Your task to perform on an android device: change notification settings in the gmail app Image 0: 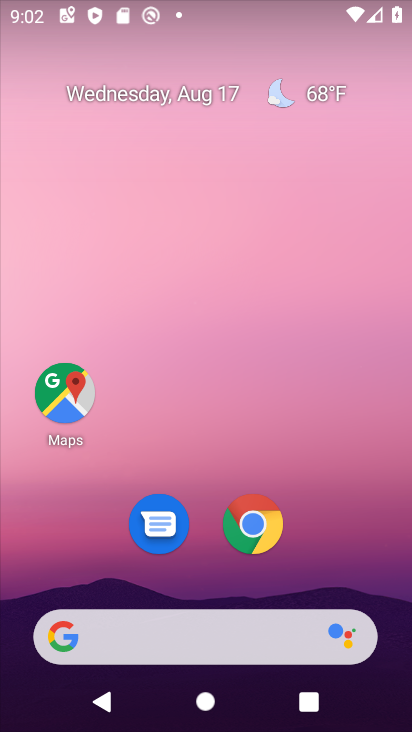
Step 0: drag from (251, 473) to (281, 13)
Your task to perform on an android device: change notification settings in the gmail app Image 1: 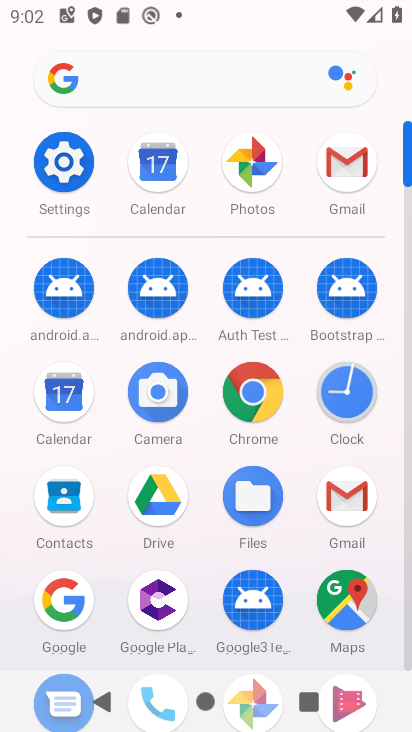
Step 1: click (352, 158)
Your task to perform on an android device: change notification settings in the gmail app Image 2: 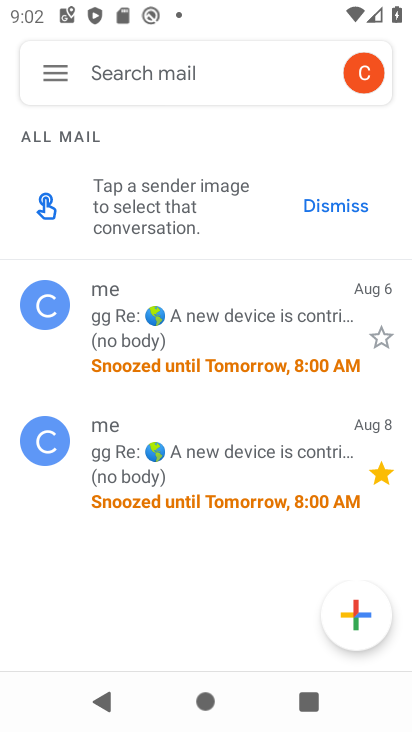
Step 2: click (59, 72)
Your task to perform on an android device: change notification settings in the gmail app Image 3: 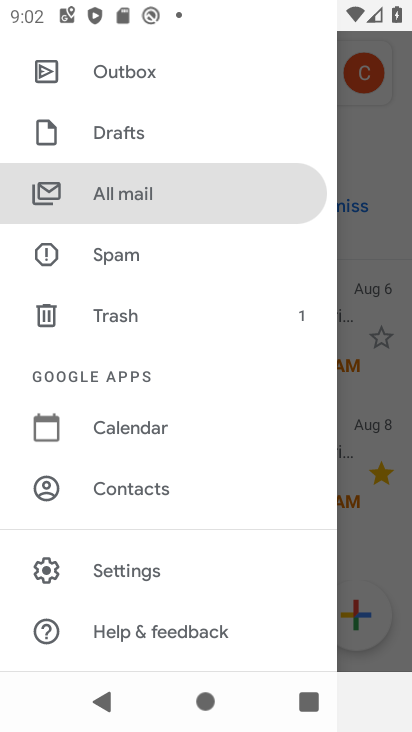
Step 3: click (118, 560)
Your task to perform on an android device: change notification settings in the gmail app Image 4: 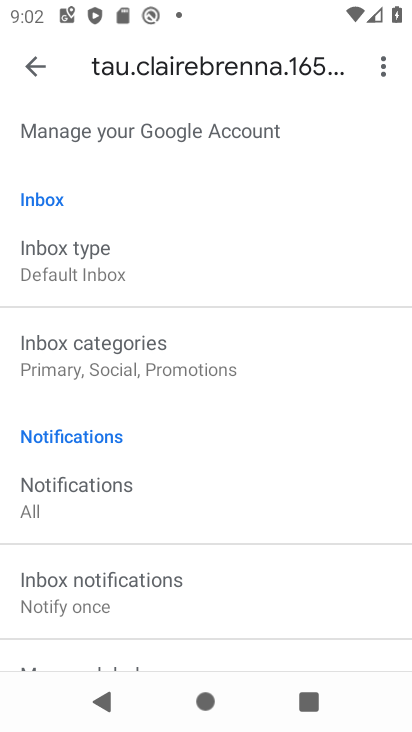
Step 4: drag from (172, 476) to (194, 21)
Your task to perform on an android device: change notification settings in the gmail app Image 5: 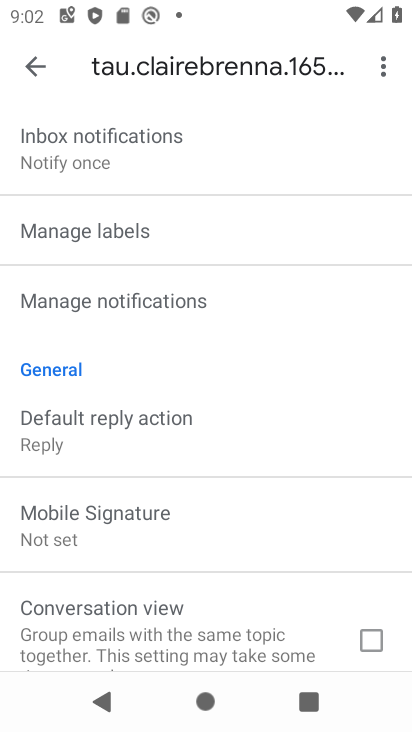
Step 5: click (202, 309)
Your task to perform on an android device: change notification settings in the gmail app Image 6: 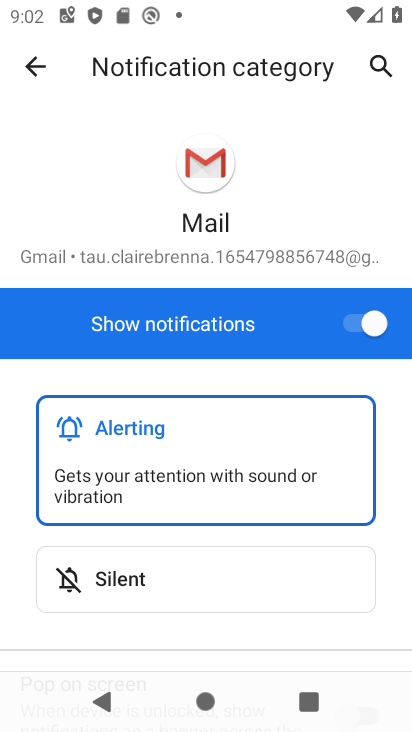
Step 6: click (353, 312)
Your task to perform on an android device: change notification settings in the gmail app Image 7: 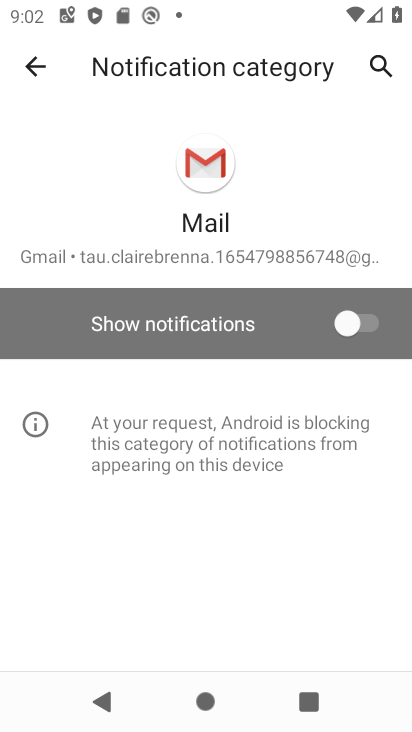
Step 7: task complete